Your task to perform on an android device: turn on airplane mode Image 0: 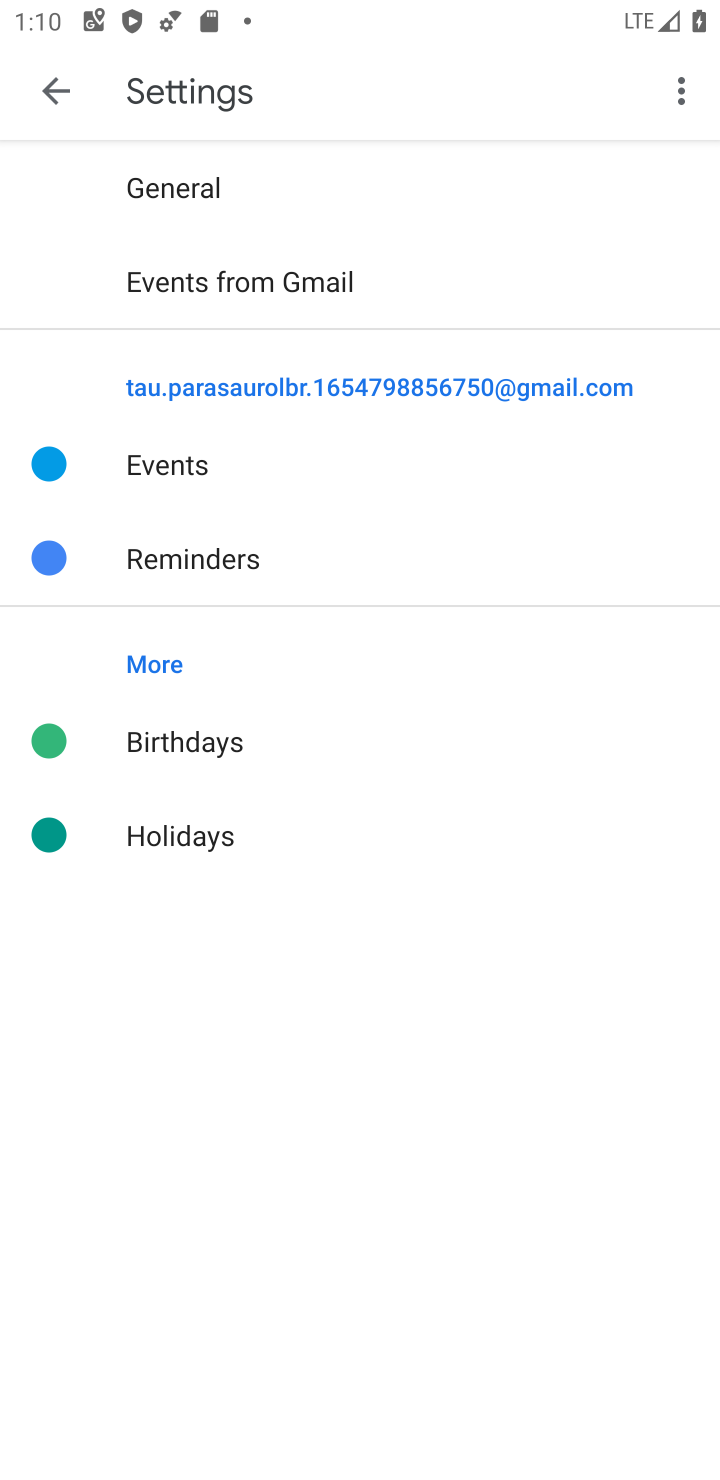
Step 0: press home button
Your task to perform on an android device: turn on airplane mode Image 1: 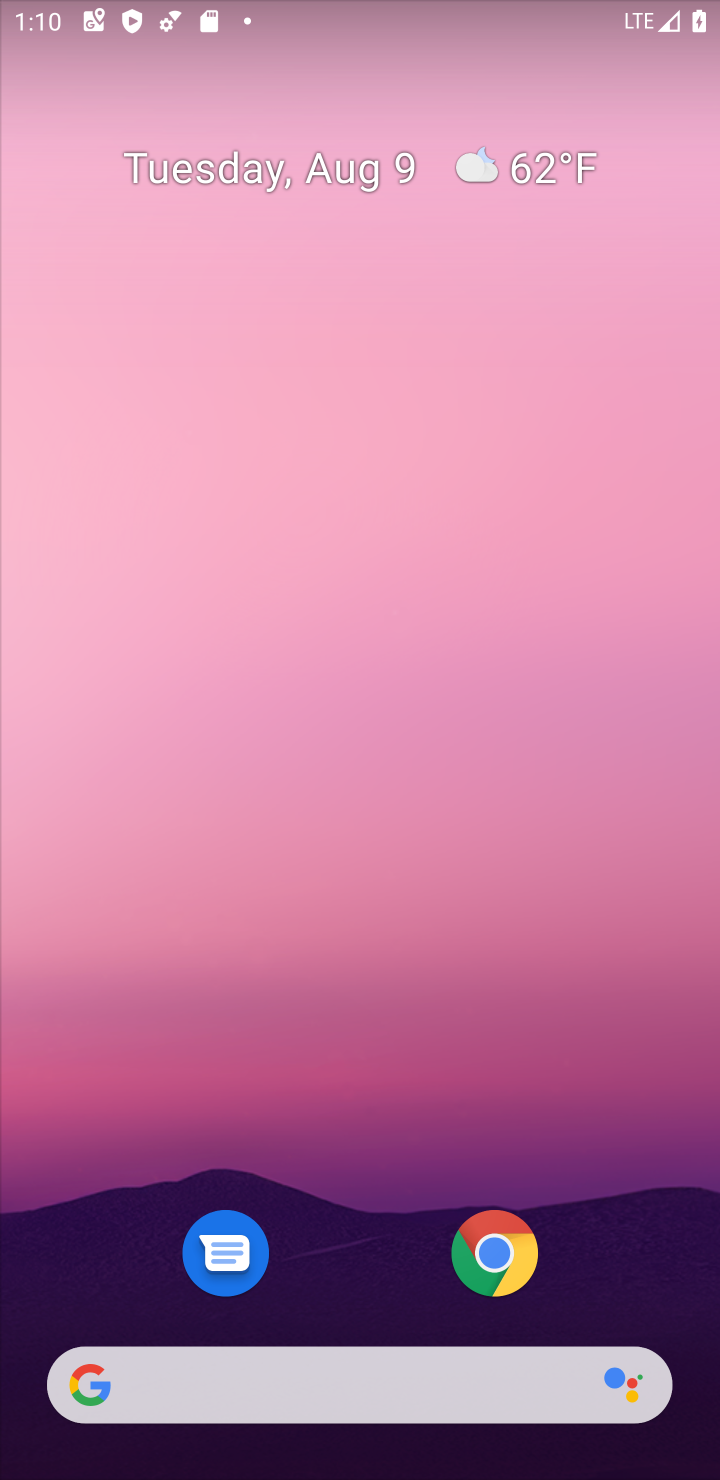
Step 1: drag from (399, 78) to (596, 1158)
Your task to perform on an android device: turn on airplane mode Image 2: 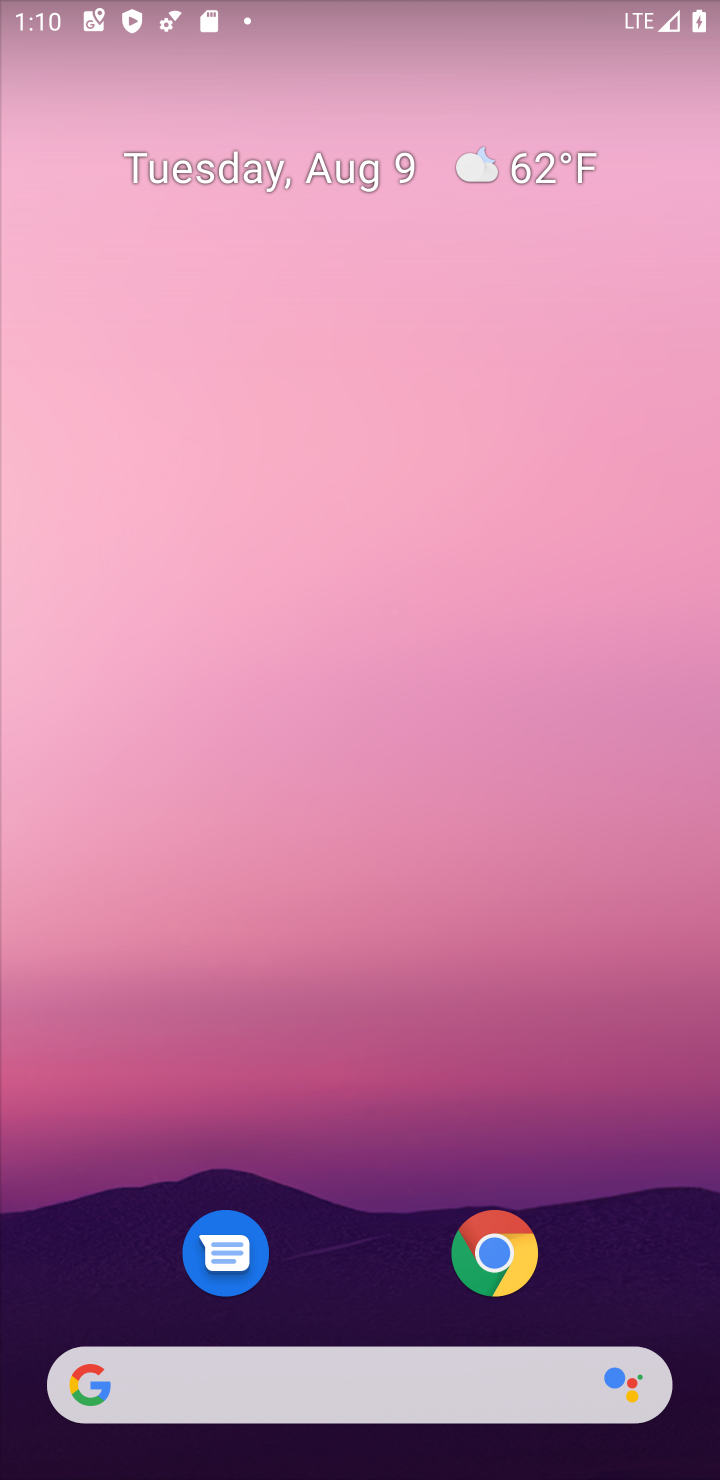
Step 2: drag from (424, 8) to (473, 1239)
Your task to perform on an android device: turn on airplane mode Image 3: 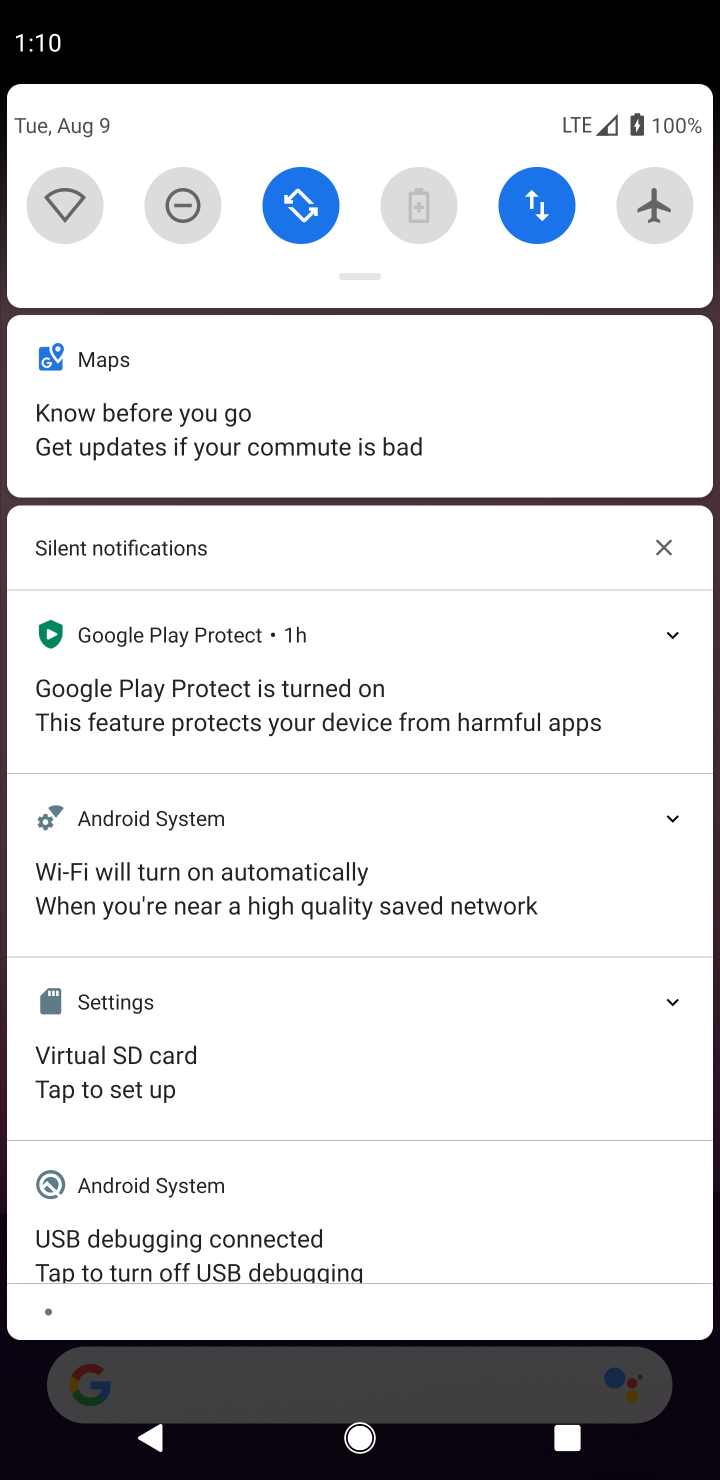
Step 3: click (665, 210)
Your task to perform on an android device: turn on airplane mode Image 4: 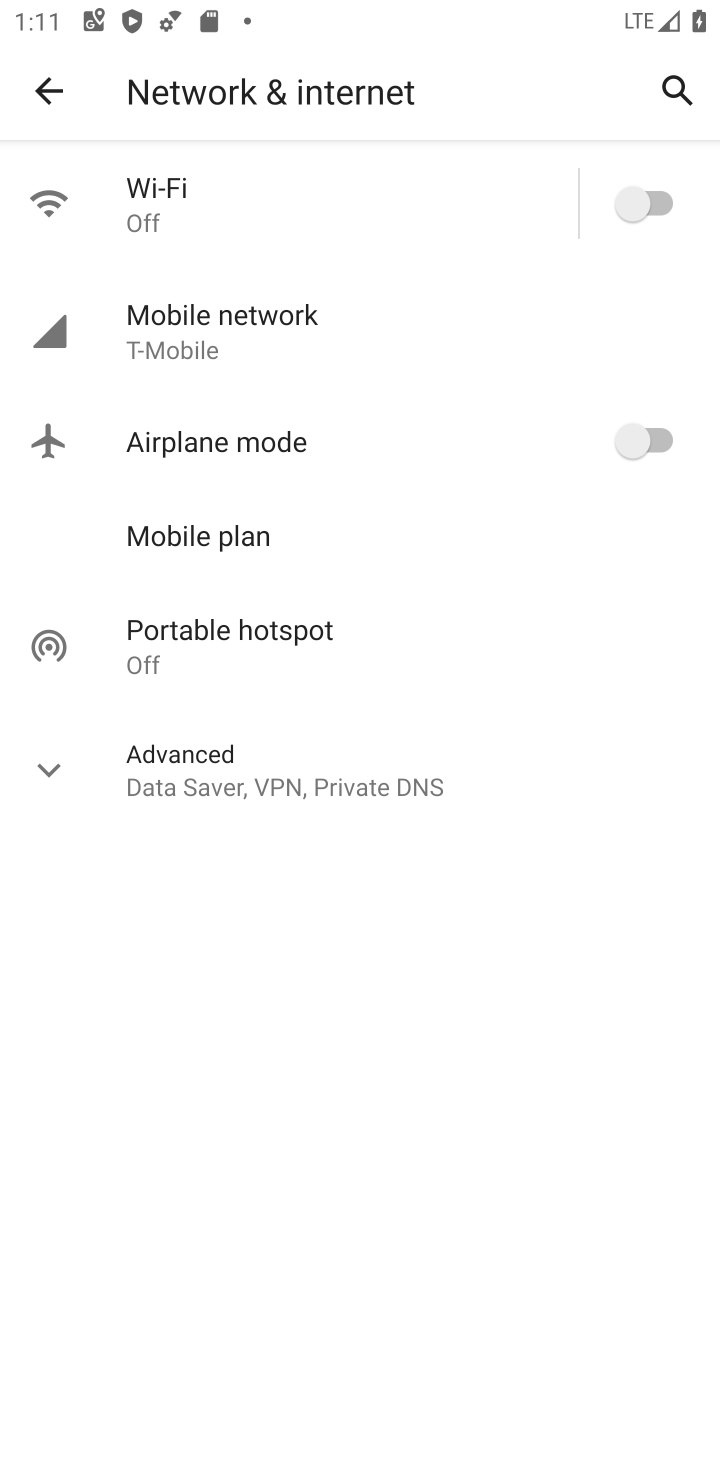
Step 4: click (654, 444)
Your task to perform on an android device: turn on airplane mode Image 5: 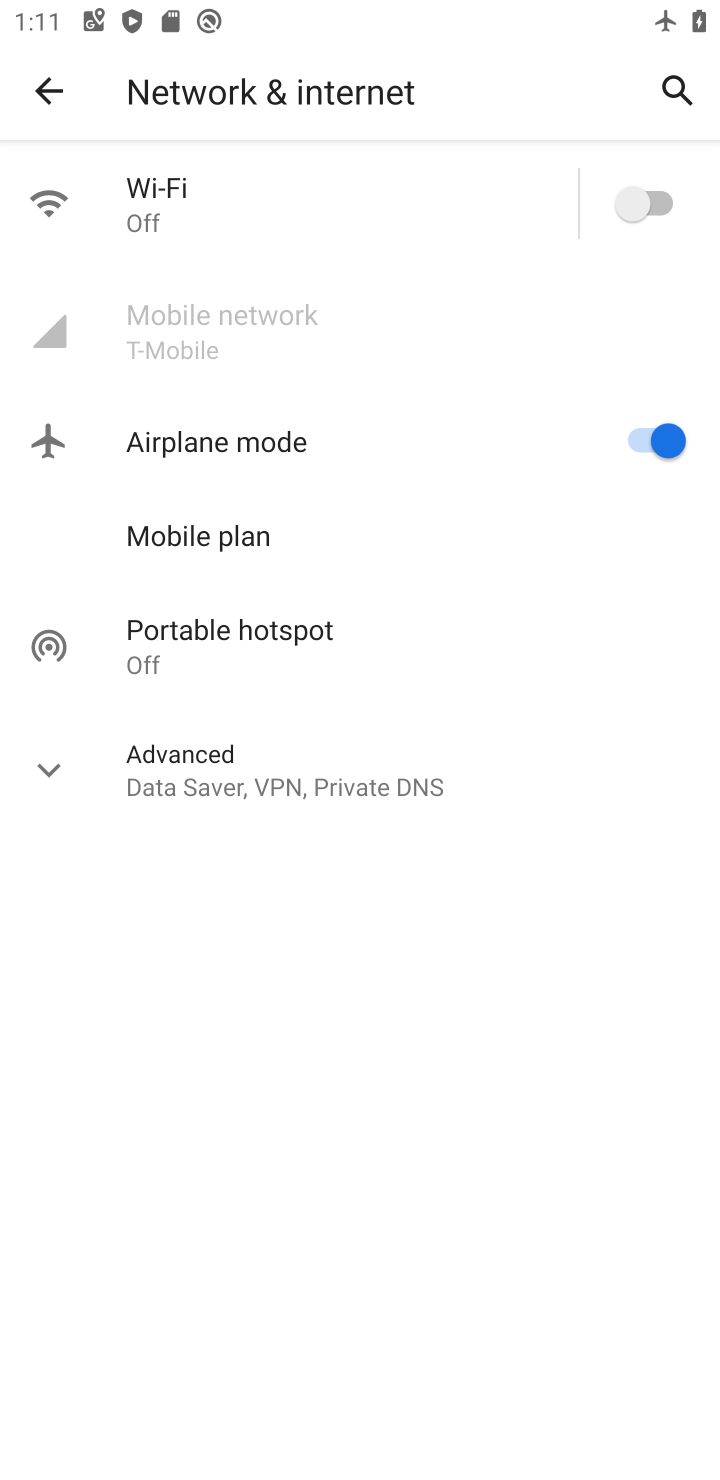
Step 5: task complete